Your task to perform on an android device: Open settings Image 0: 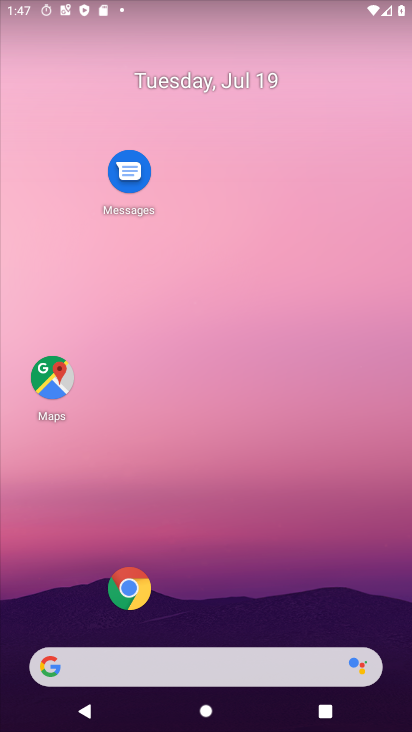
Step 0: drag from (10, 710) to (247, 120)
Your task to perform on an android device: Open settings Image 1: 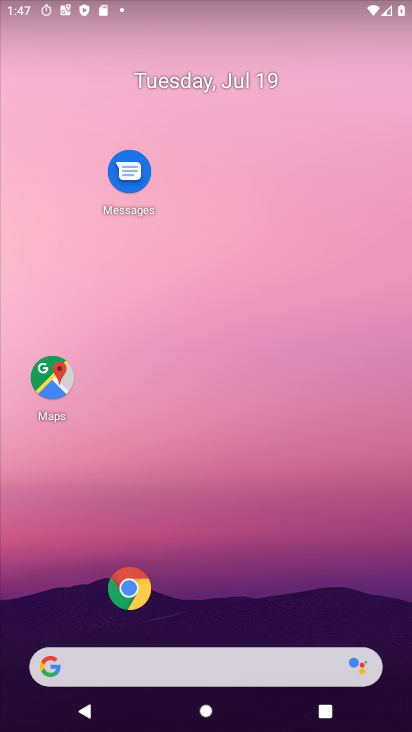
Step 1: drag from (146, 460) to (314, 60)
Your task to perform on an android device: Open settings Image 2: 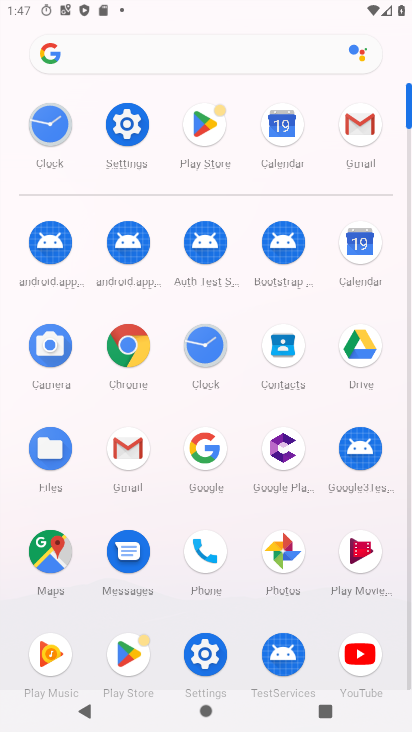
Step 2: click (120, 130)
Your task to perform on an android device: Open settings Image 3: 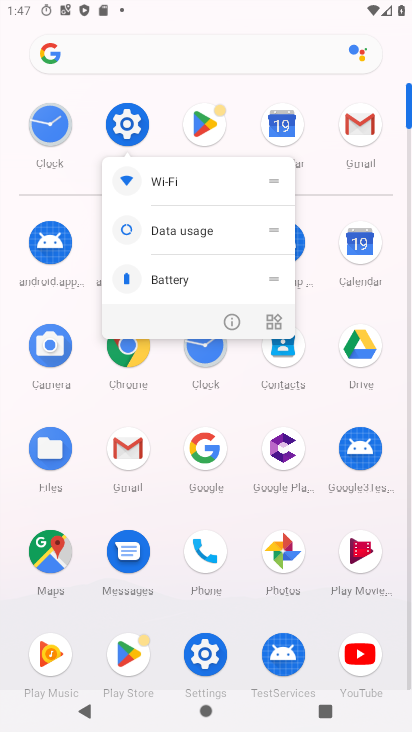
Step 3: click (127, 124)
Your task to perform on an android device: Open settings Image 4: 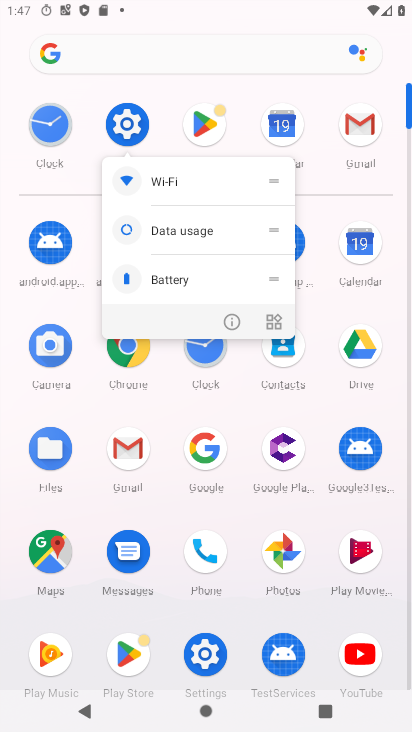
Step 4: click (125, 112)
Your task to perform on an android device: Open settings Image 5: 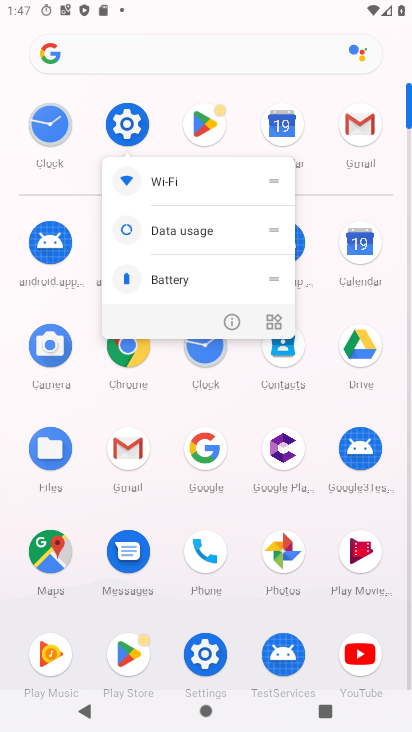
Step 5: click (124, 125)
Your task to perform on an android device: Open settings Image 6: 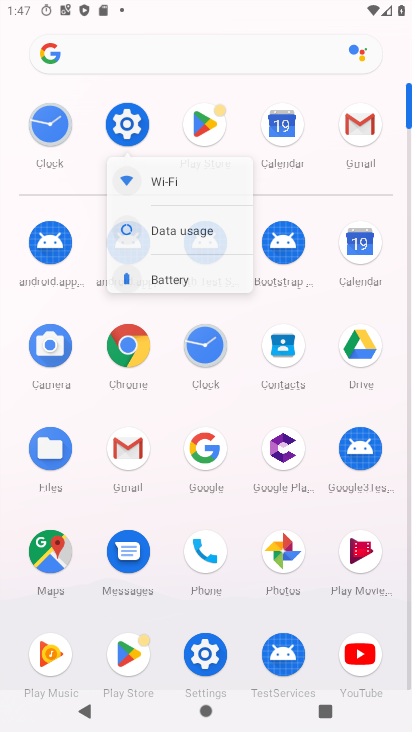
Step 6: click (124, 125)
Your task to perform on an android device: Open settings Image 7: 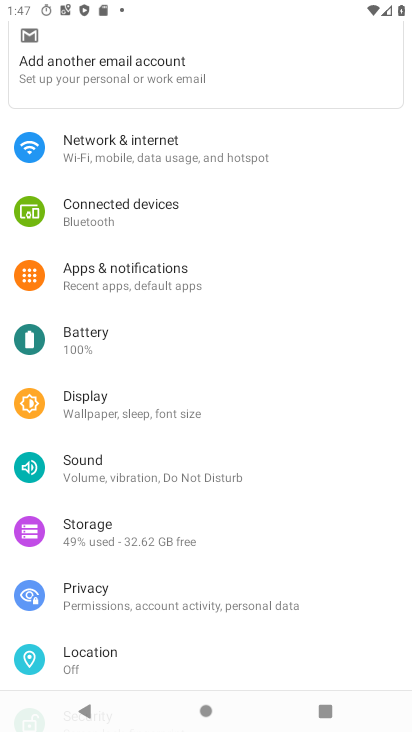
Step 7: task complete